Your task to perform on an android device: Set the phone to "Do not disturb". Image 0: 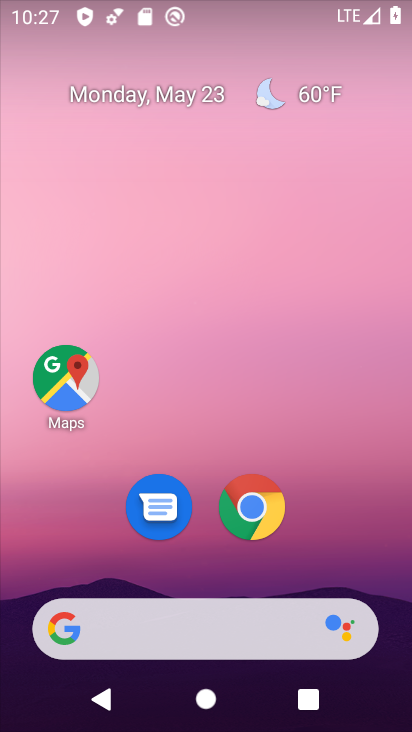
Step 0: drag from (334, 552) to (287, 129)
Your task to perform on an android device: Set the phone to "Do not disturb". Image 1: 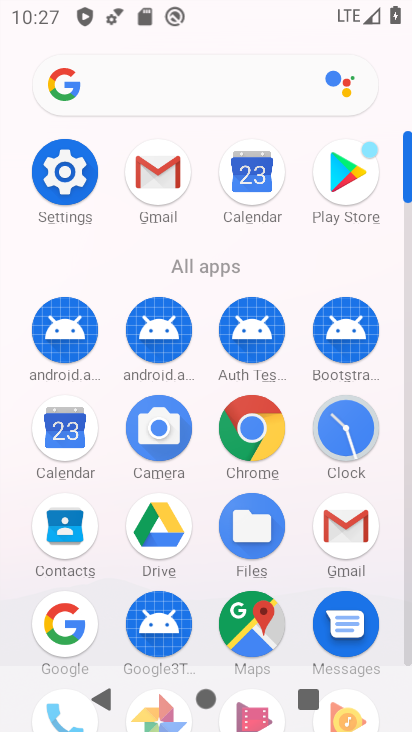
Step 1: click (66, 172)
Your task to perform on an android device: Set the phone to "Do not disturb". Image 2: 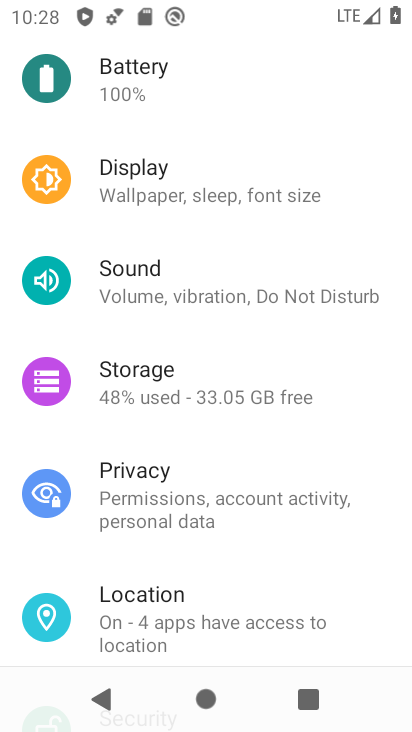
Step 2: click (152, 286)
Your task to perform on an android device: Set the phone to "Do not disturb". Image 3: 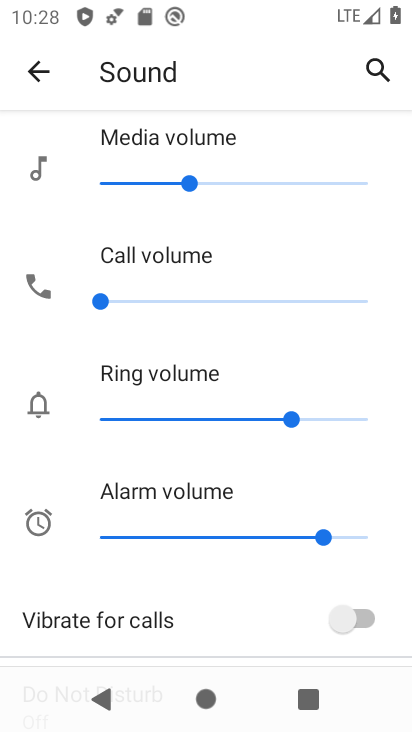
Step 3: drag from (194, 586) to (198, 471)
Your task to perform on an android device: Set the phone to "Do not disturb". Image 4: 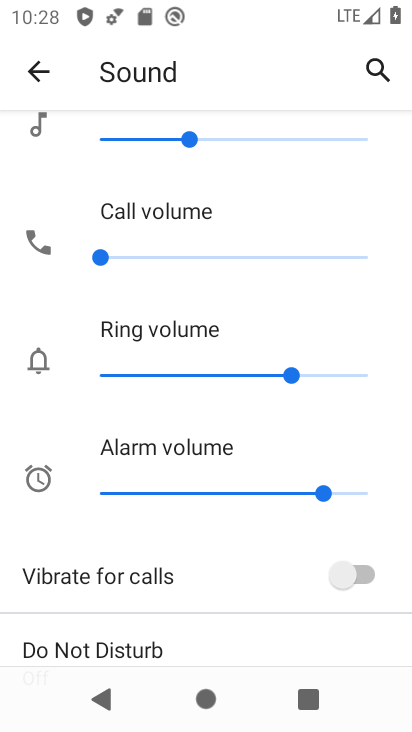
Step 4: drag from (210, 581) to (259, 413)
Your task to perform on an android device: Set the phone to "Do not disturb". Image 5: 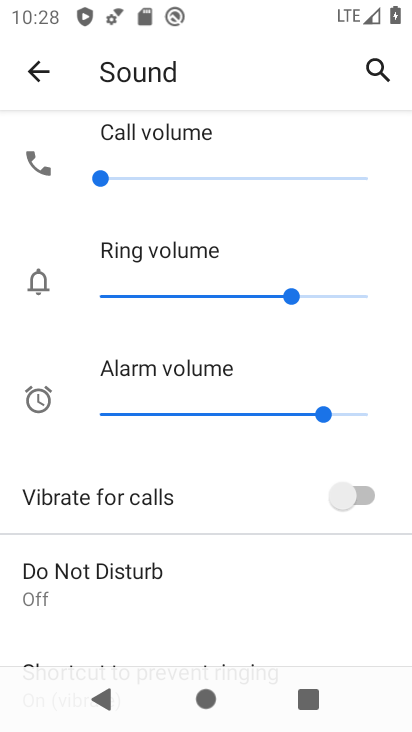
Step 5: drag from (253, 522) to (280, 450)
Your task to perform on an android device: Set the phone to "Do not disturb". Image 6: 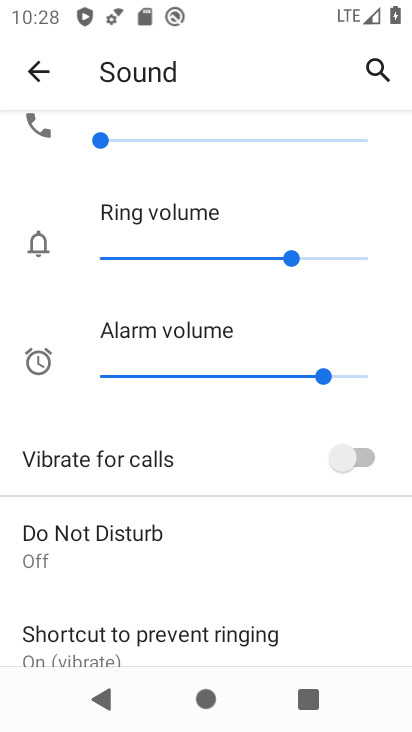
Step 6: click (135, 534)
Your task to perform on an android device: Set the phone to "Do not disturb". Image 7: 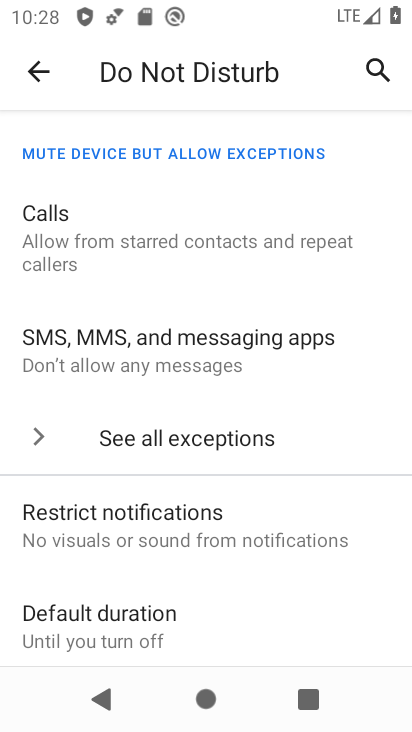
Step 7: drag from (196, 567) to (250, 402)
Your task to perform on an android device: Set the phone to "Do not disturb". Image 8: 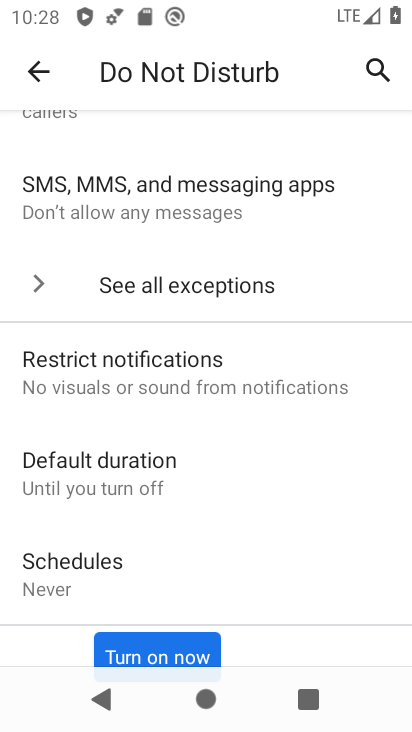
Step 8: drag from (180, 617) to (256, 394)
Your task to perform on an android device: Set the phone to "Do not disturb". Image 9: 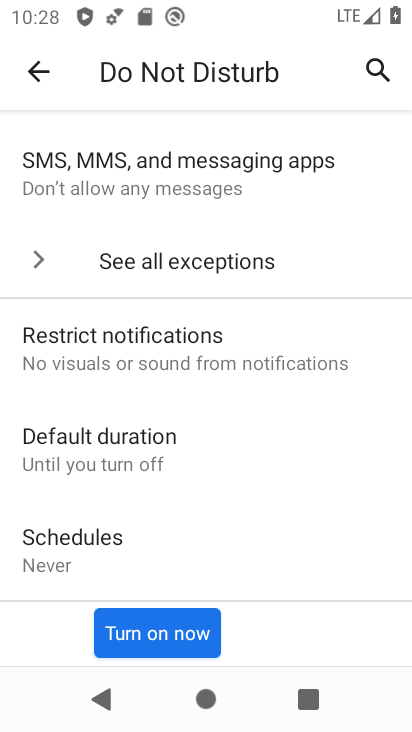
Step 9: click (158, 638)
Your task to perform on an android device: Set the phone to "Do not disturb". Image 10: 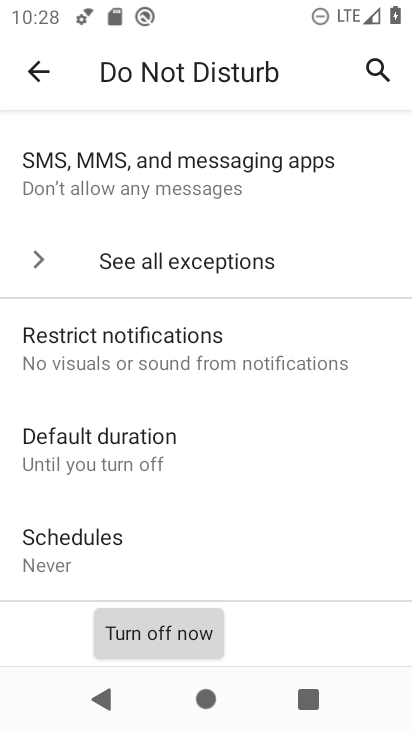
Step 10: task complete